Your task to perform on an android device: turn off notifications in google photos Image 0: 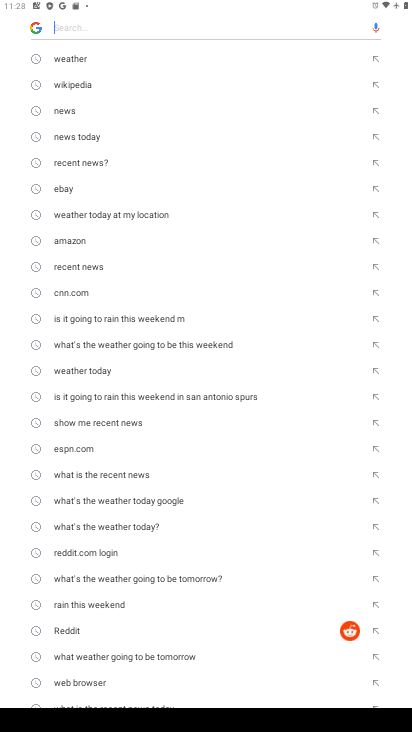
Step 0: press back button
Your task to perform on an android device: turn off notifications in google photos Image 1: 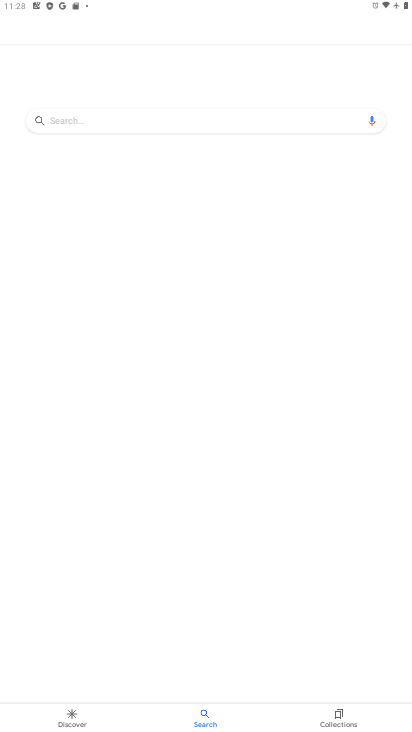
Step 1: press back button
Your task to perform on an android device: turn off notifications in google photos Image 2: 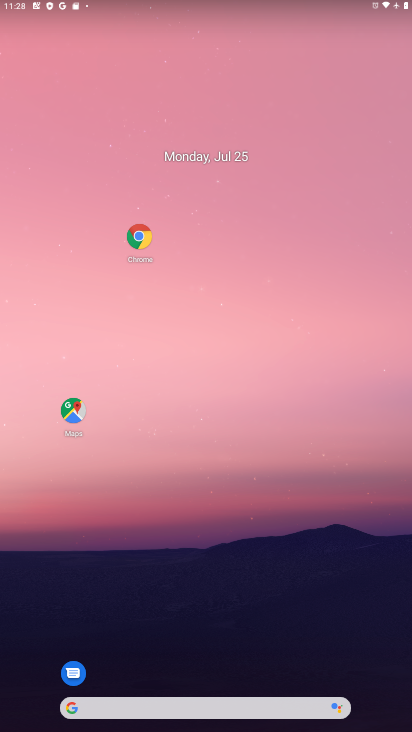
Step 2: drag from (310, 650) to (270, 333)
Your task to perform on an android device: turn off notifications in google photos Image 3: 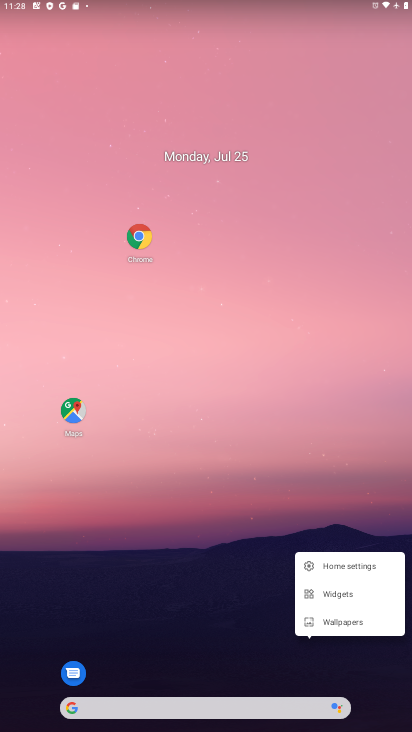
Step 3: click (221, 569)
Your task to perform on an android device: turn off notifications in google photos Image 4: 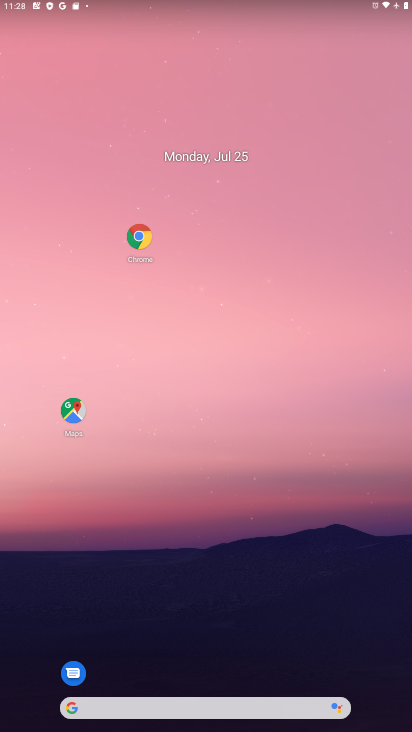
Step 4: drag from (231, 680) to (202, 271)
Your task to perform on an android device: turn off notifications in google photos Image 5: 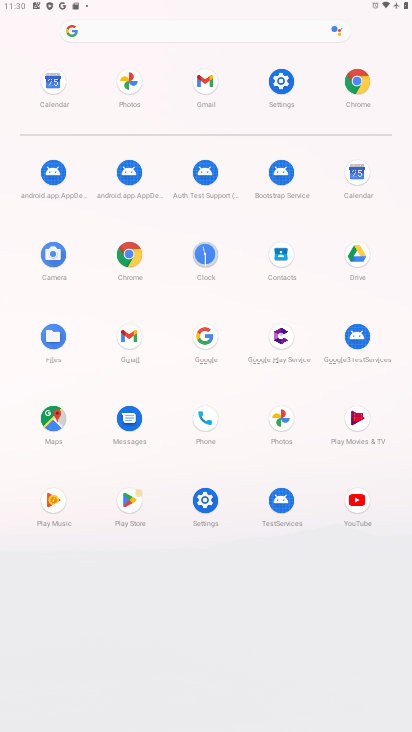
Step 5: click (128, 81)
Your task to perform on an android device: turn off notifications in google photos Image 6: 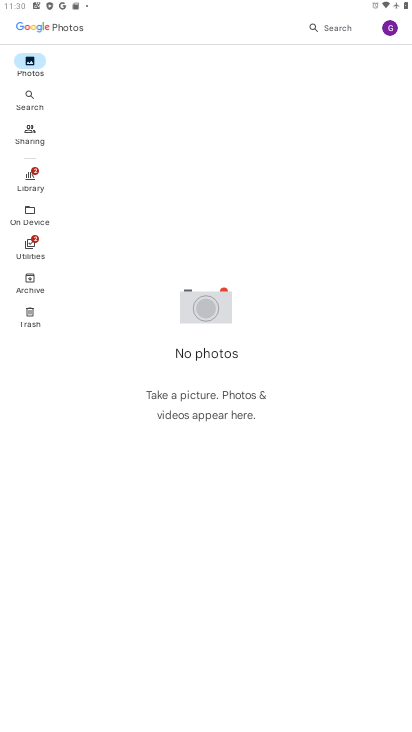
Step 6: task complete